Your task to perform on an android device: change alarm snooze length Image 0: 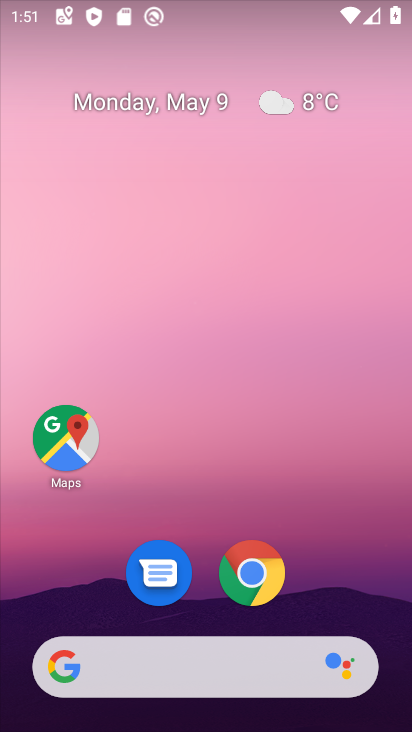
Step 0: drag from (202, 614) to (198, 211)
Your task to perform on an android device: change alarm snooze length Image 1: 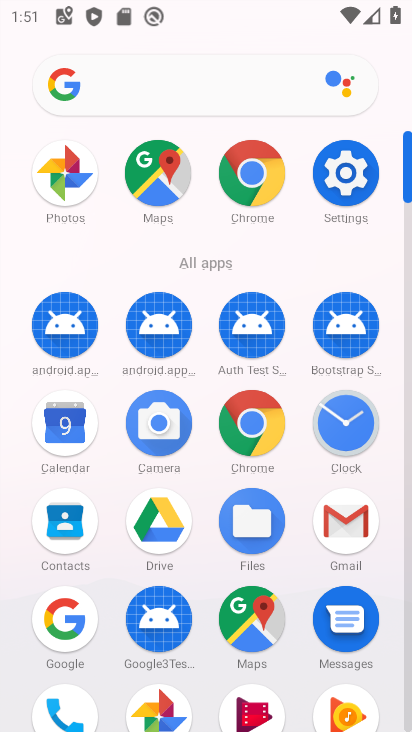
Step 1: click (329, 416)
Your task to perform on an android device: change alarm snooze length Image 2: 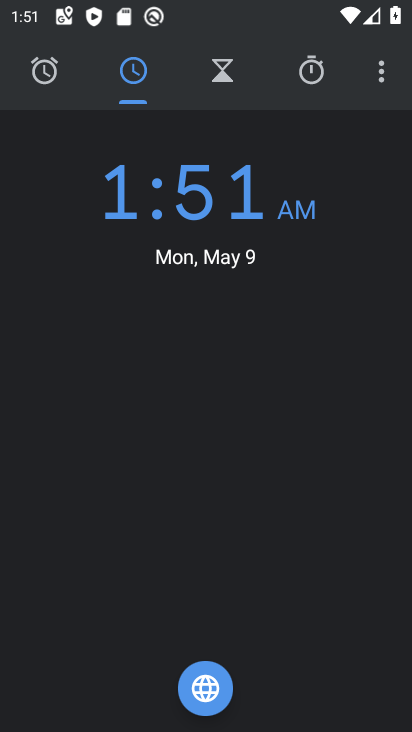
Step 2: click (371, 74)
Your task to perform on an android device: change alarm snooze length Image 3: 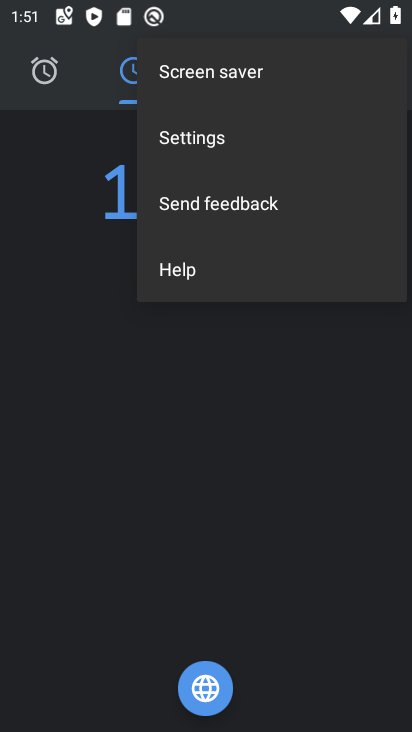
Step 3: click (246, 140)
Your task to perform on an android device: change alarm snooze length Image 4: 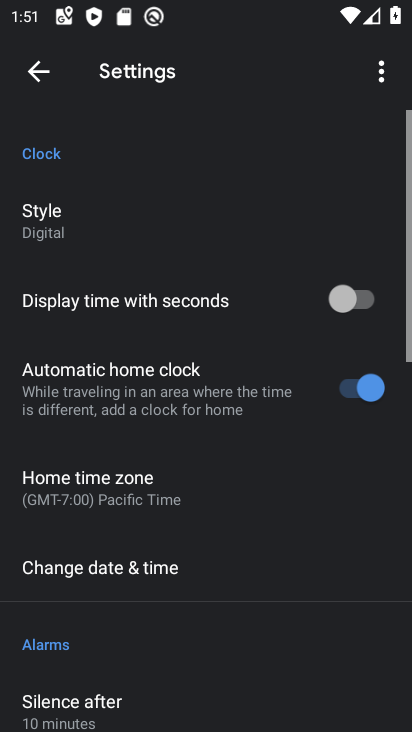
Step 4: drag from (189, 526) to (252, 141)
Your task to perform on an android device: change alarm snooze length Image 5: 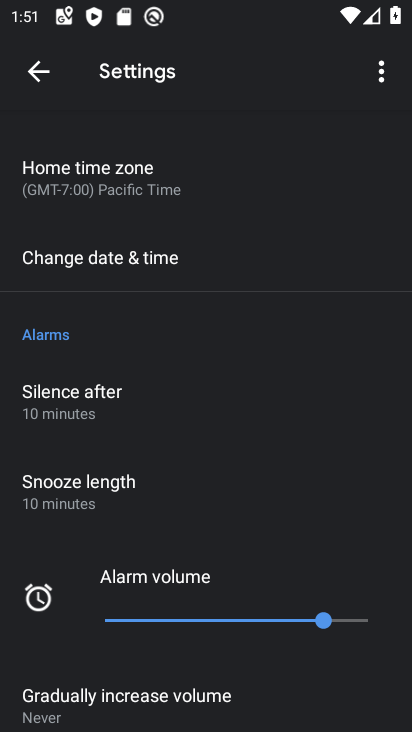
Step 5: click (153, 477)
Your task to perform on an android device: change alarm snooze length Image 6: 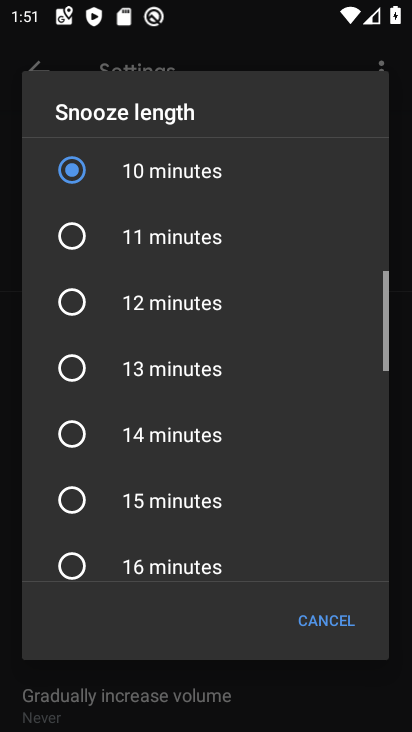
Step 6: click (82, 306)
Your task to perform on an android device: change alarm snooze length Image 7: 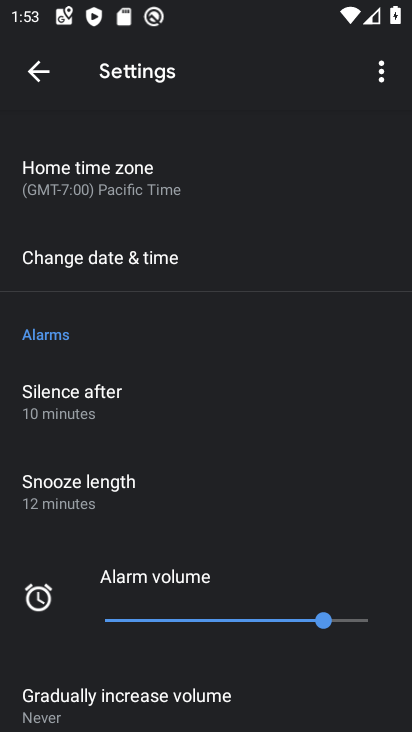
Step 7: task complete